Your task to perform on an android device: see sites visited before in the chrome app Image 0: 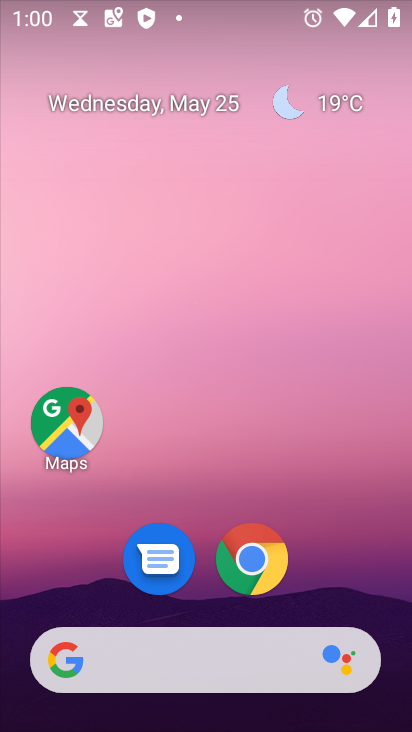
Step 0: click (267, 538)
Your task to perform on an android device: see sites visited before in the chrome app Image 1: 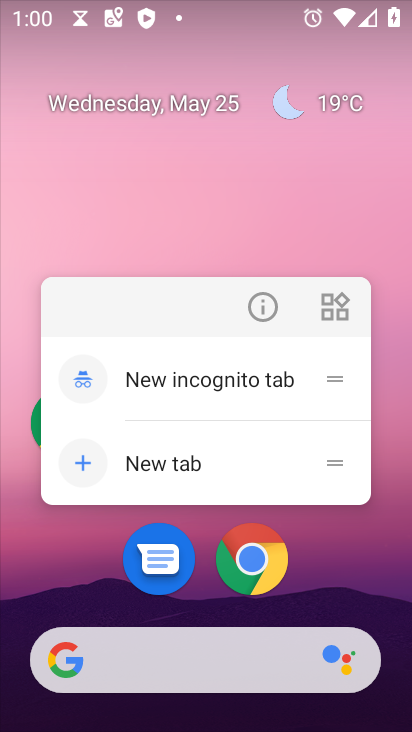
Step 1: click (258, 551)
Your task to perform on an android device: see sites visited before in the chrome app Image 2: 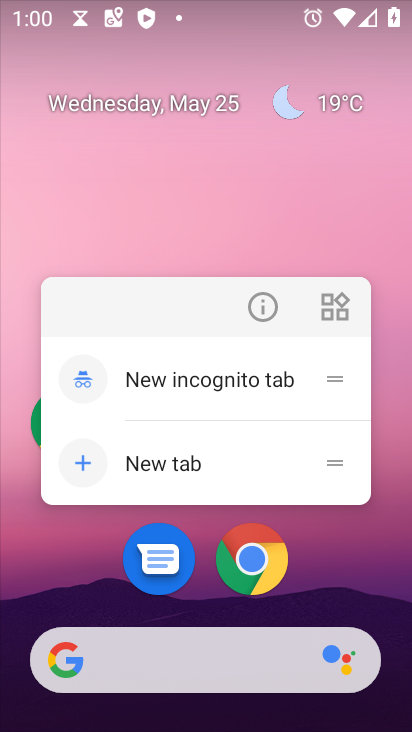
Step 2: click (258, 551)
Your task to perform on an android device: see sites visited before in the chrome app Image 3: 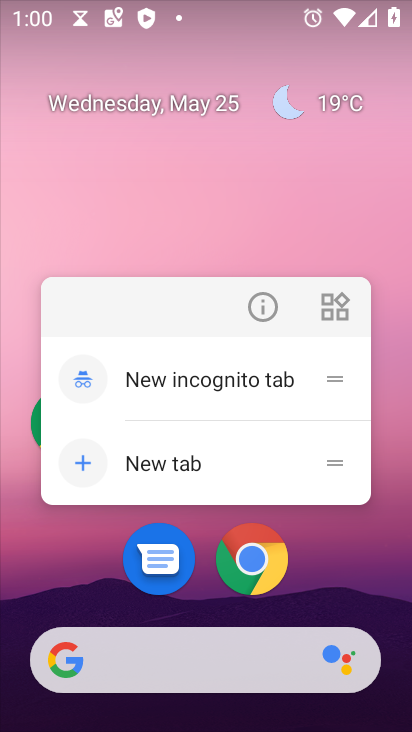
Step 3: click (347, 573)
Your task to perform on an android device: see sites visited before in the chrome app Image 4: 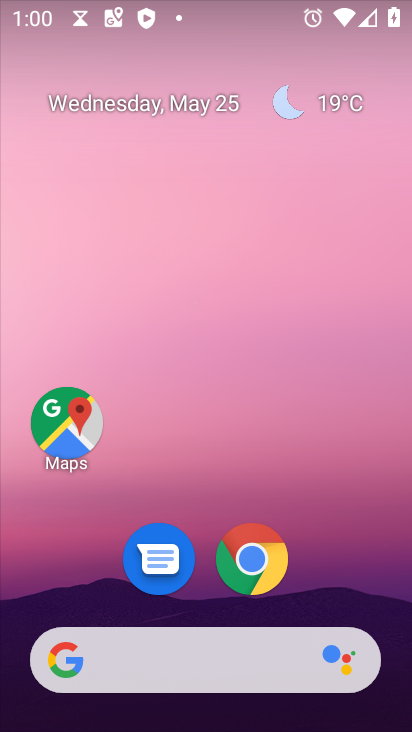
Step 4: drag from (347, 597) to (286, 34)
Your task to perform on an android device: see sites visited before in the chrome app Image 5: 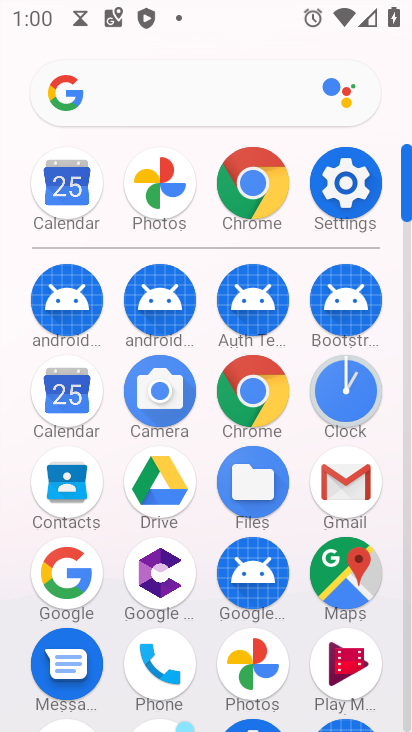
Step 5: click (281, 197)
Your task to perform on an android device: see sites visited before in the chrome app Image 6: 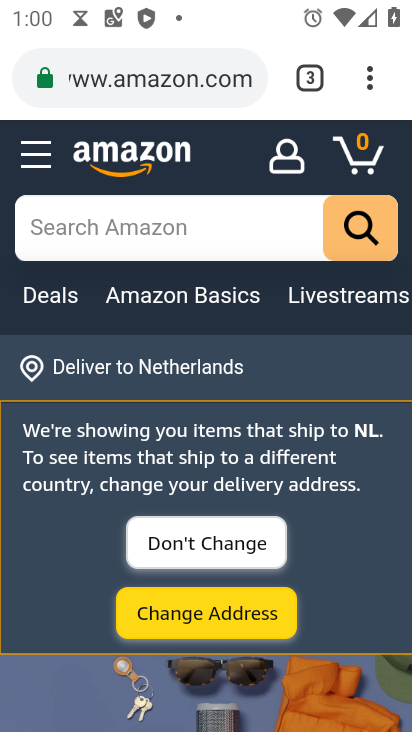
Step 6: task complete